Your task to perform on an android device: Check the news Image 0: 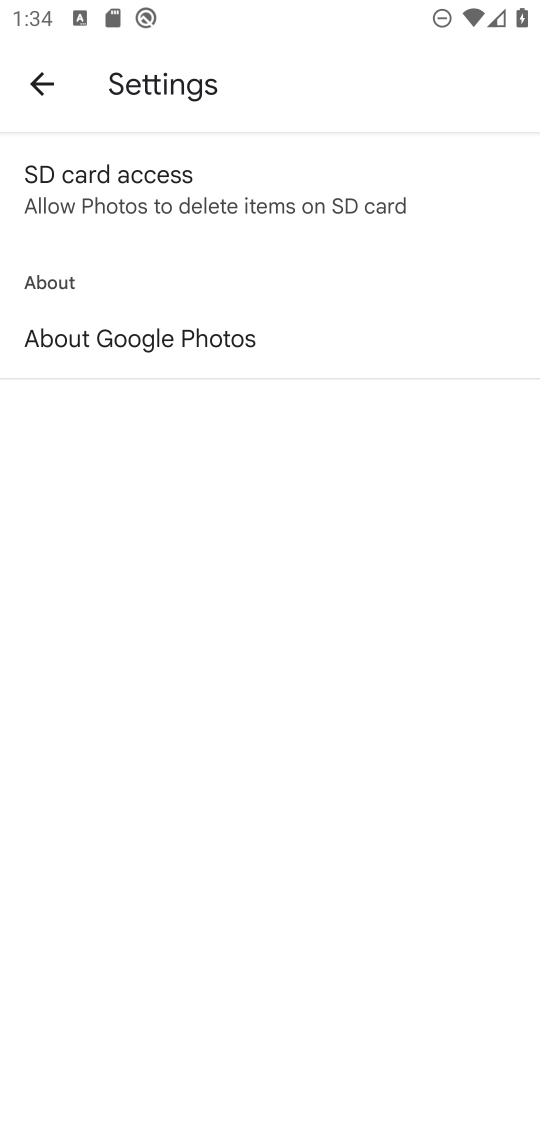
Step 0: press home button
Your task to perform on an android device: Check the news Image 1: 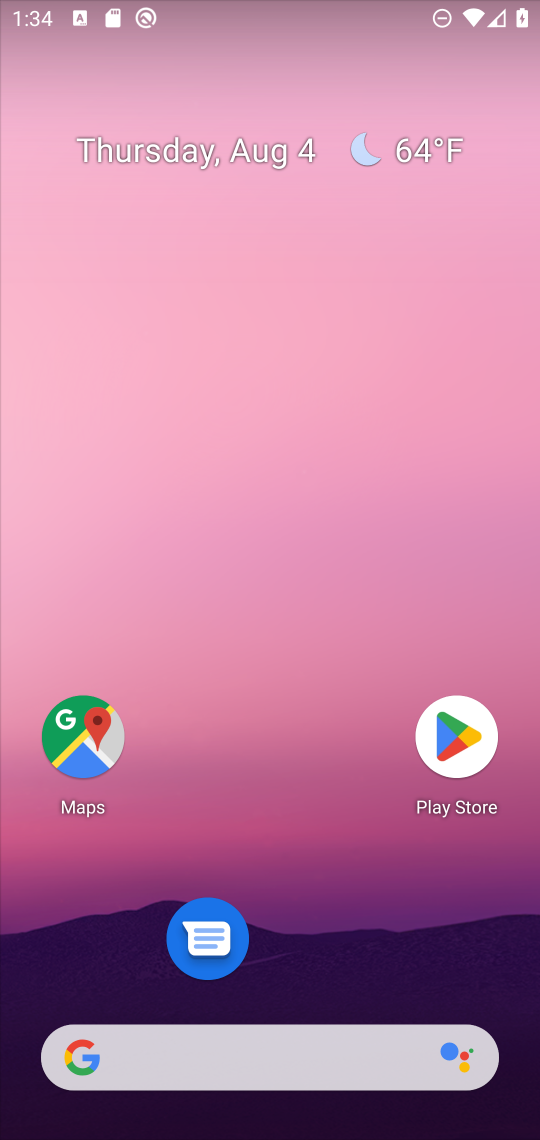
Step 1: click (351, 1070)
Your task to perform on an android device: Check the news Image 2: 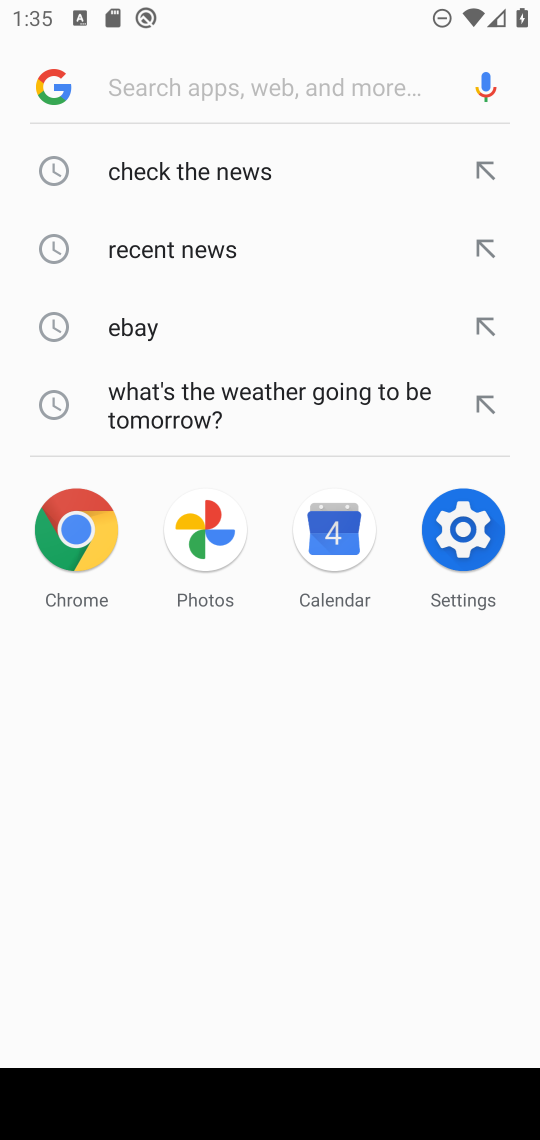
Step 2: type "check the news"
Your task to perform on an android device: Check the news Image 3: 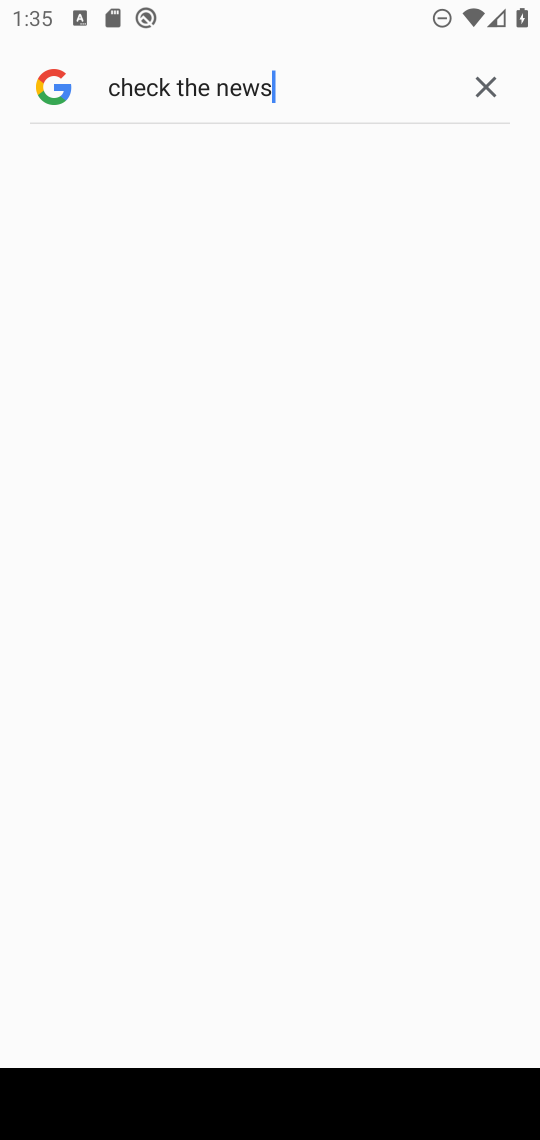
Step 3: press enter
Your task to perform on an android device: Check the news Image 4: 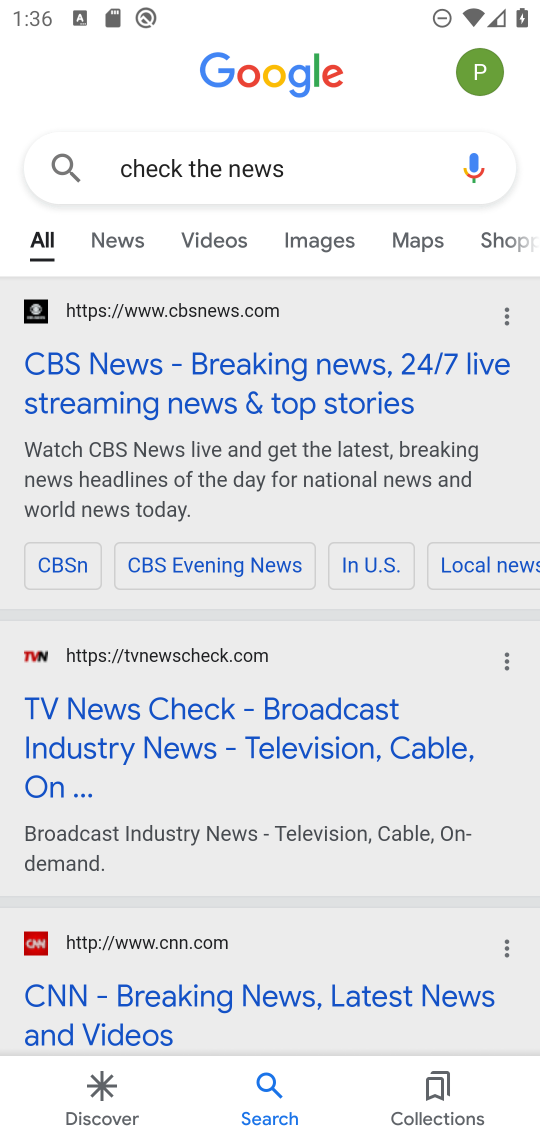
Step 4: task complete